Your task to perform on an android device: Open wifi settings Image 0: 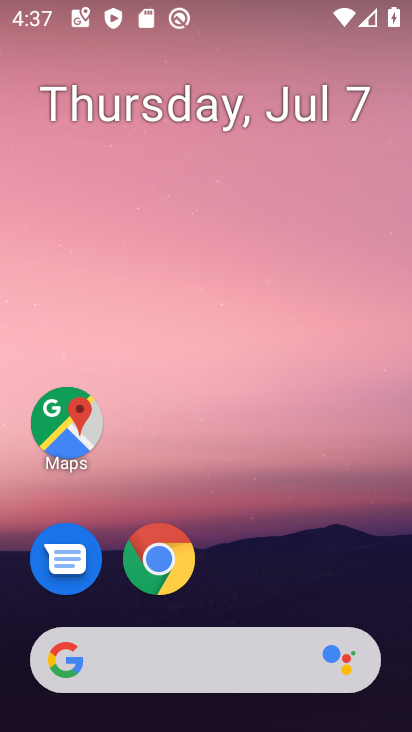
Step 0: drag from (153, 14) to (139, 643)
Your task to perform on an android device: Open wifi settings Image 1: 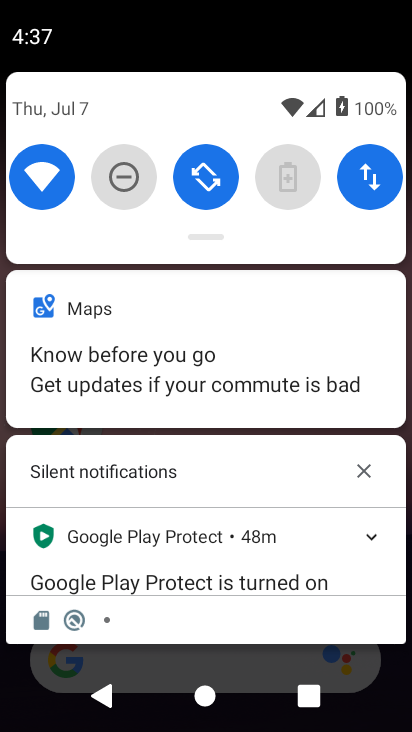
Step 1: click (43, 171)
Your task to perform on an android device: Open wifi settings Image 2: 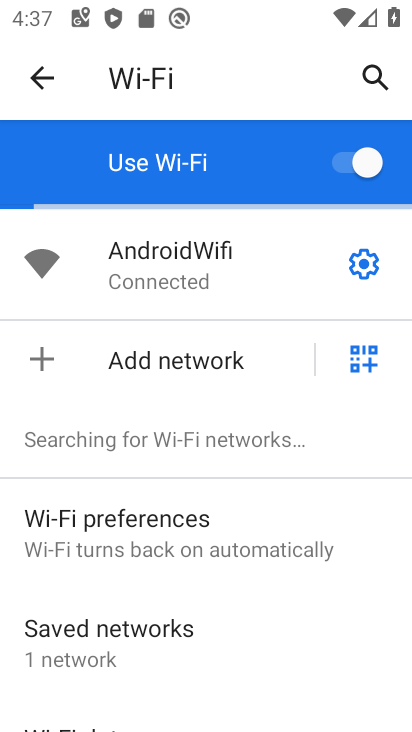
Step 2: task complete